Your task to perform on an android device: open app "Google Calendar" Image 0: 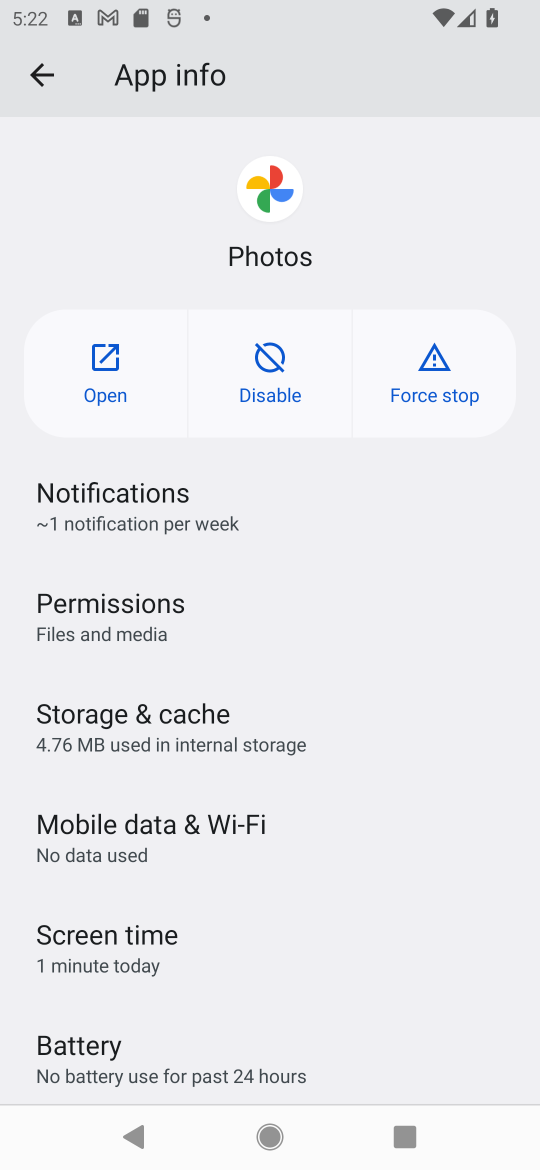
Step 0: press home button
Your task to perform on an android device: open app "Google Calendar" Image 1: 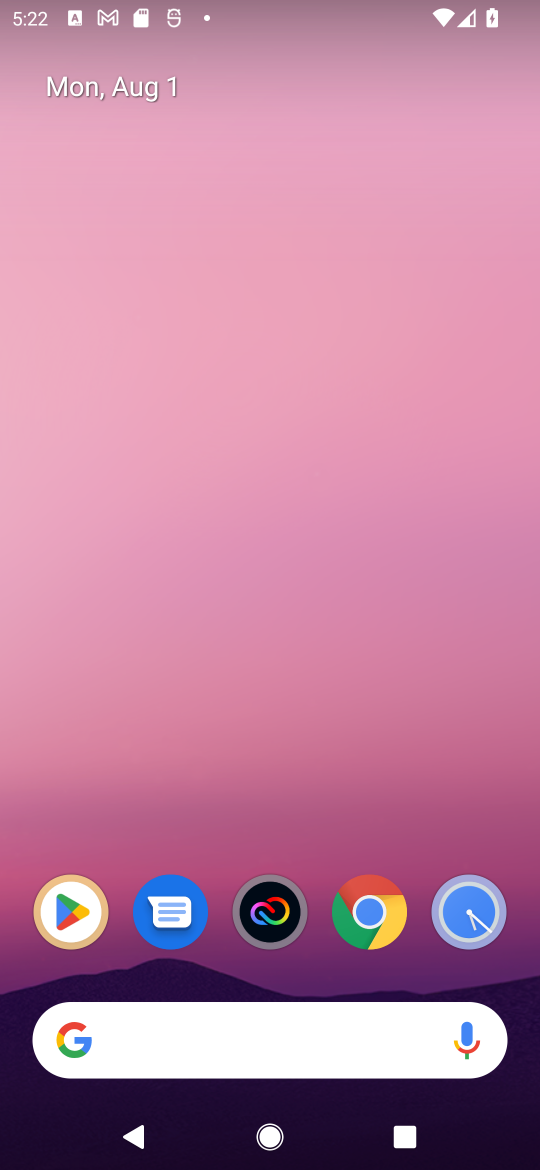
Step 1: click (92, 920)
Your task to perform on an android device: open app "Google Calendar" Image 2: 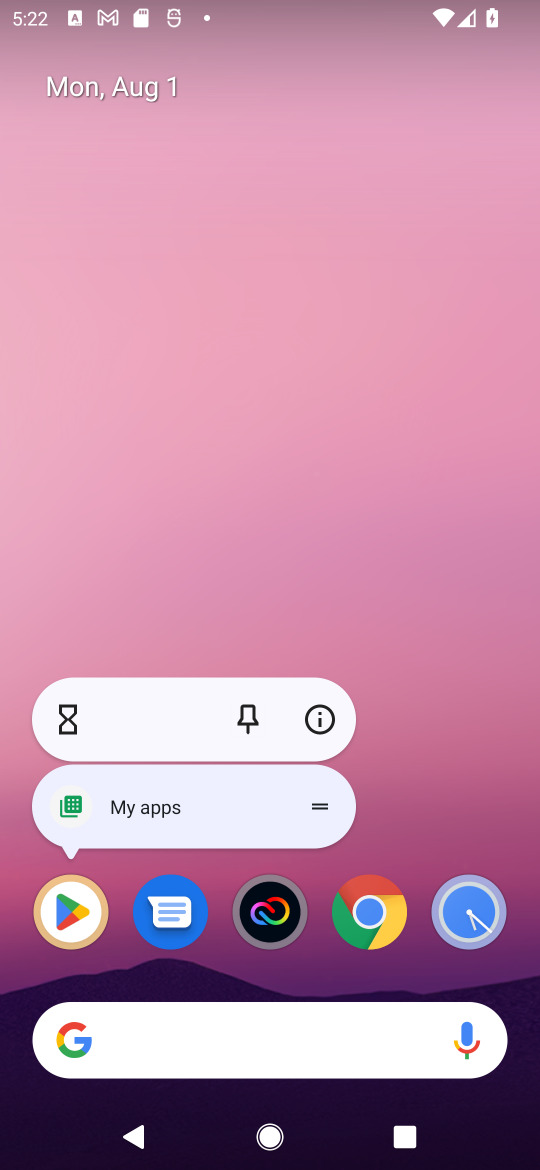
Step 2: click (59, 938)
Your task to perform on an android device: open app "Google Calendar" Image 3: 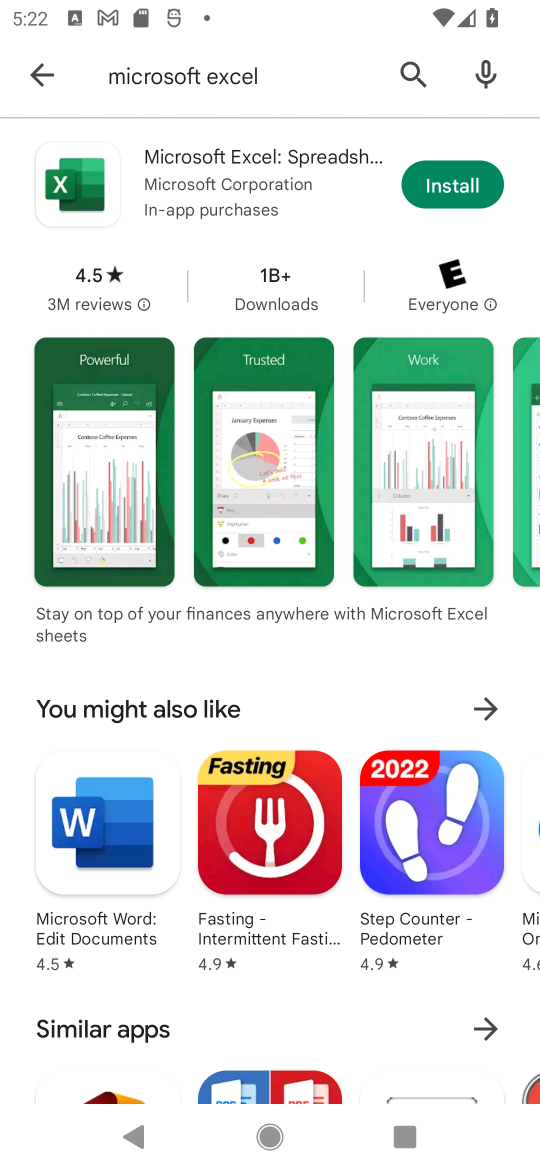
Step 3: click (417, 75)
Your task to perform on an android device: open app "Google Calendar" Image 4: 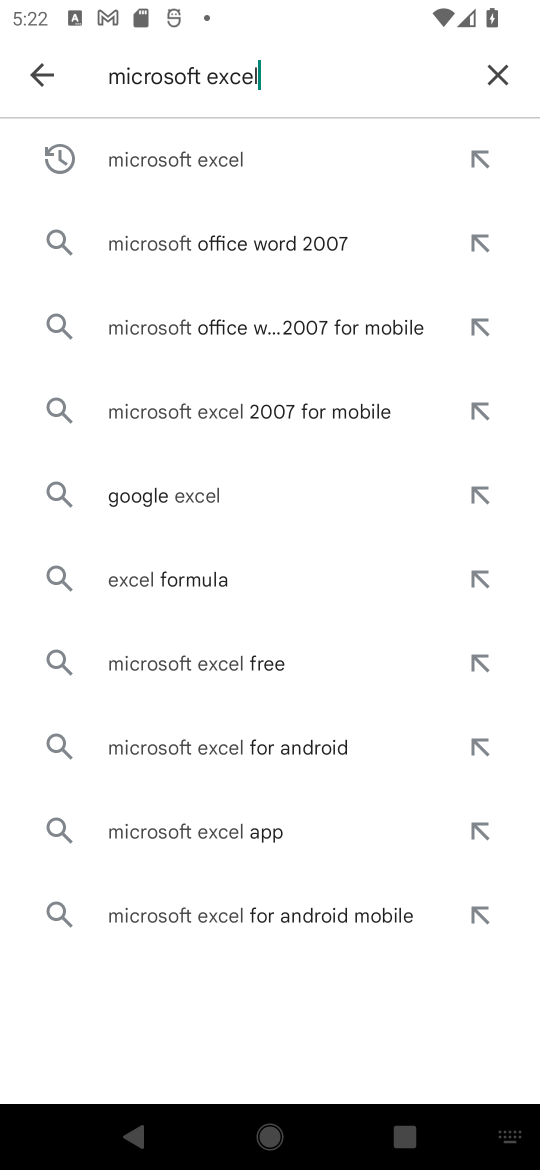
Step 4: click (495, 75)
Your task to perform on an android device: open app "Google Calendar" Image 5: 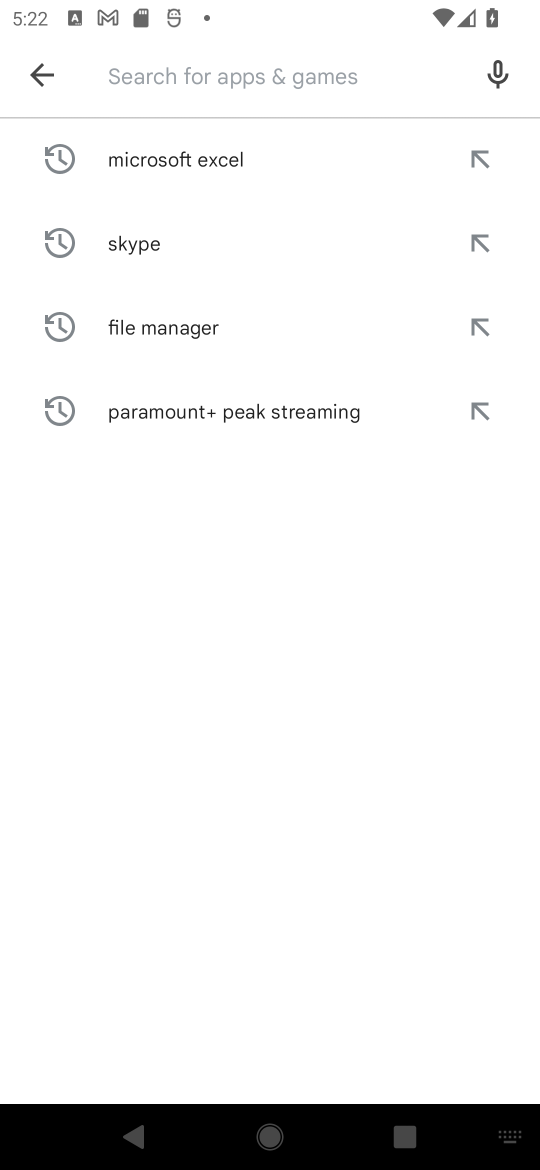
Step 5: type "Google Calendar"
Your task to perform on an android device: open app "Google Calendar" Image 6: 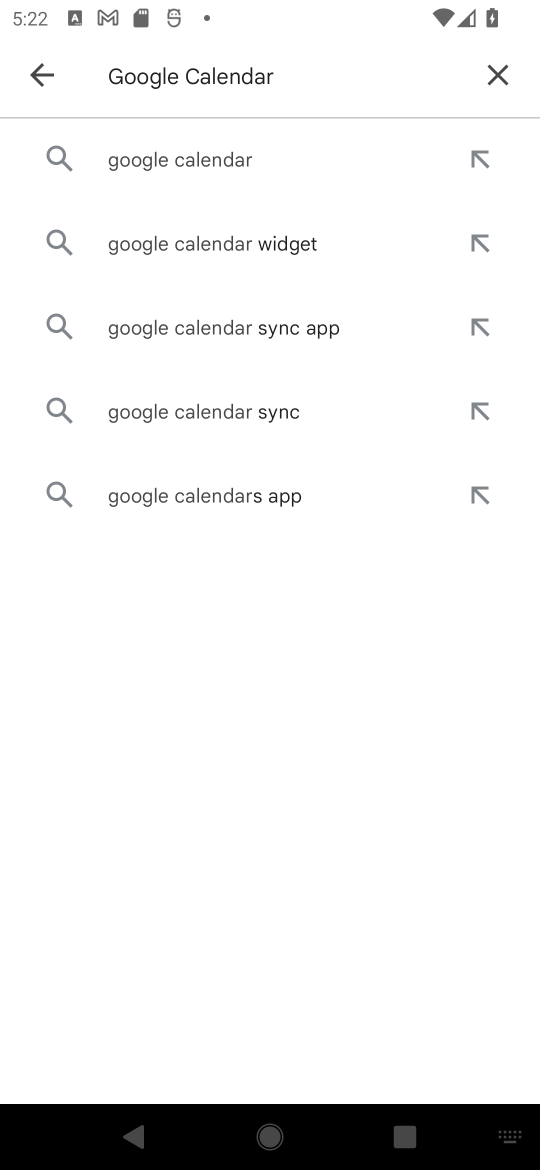
Step 6: click (191, 173)
Your task to perform on an android device: open app "Google Calendar" Image 7: 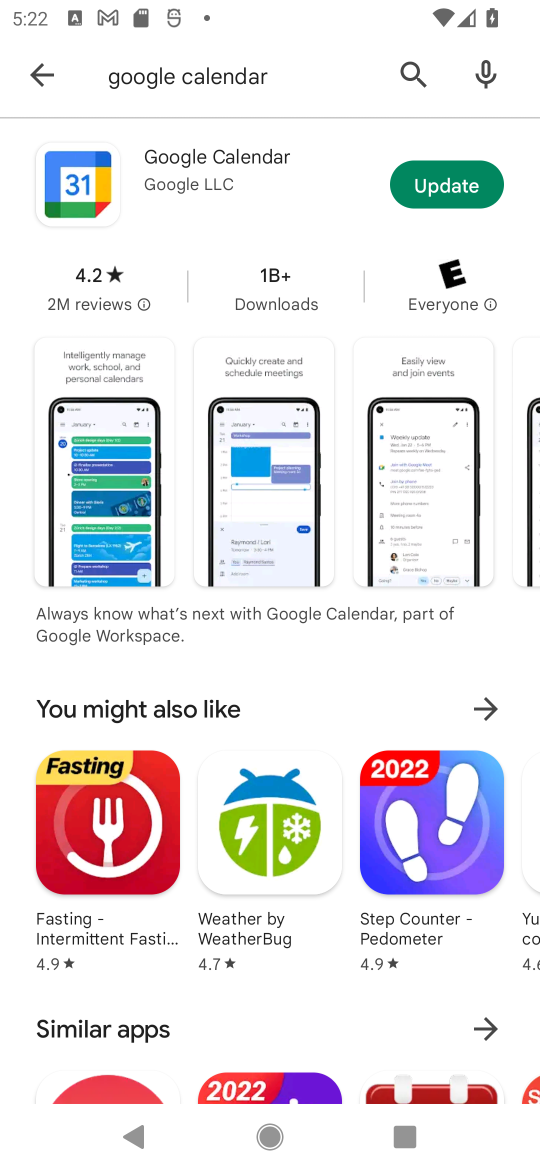
Step 7: click (173, 180)
Your task to perform on an android device: open app "Google Calendar" Image 8: 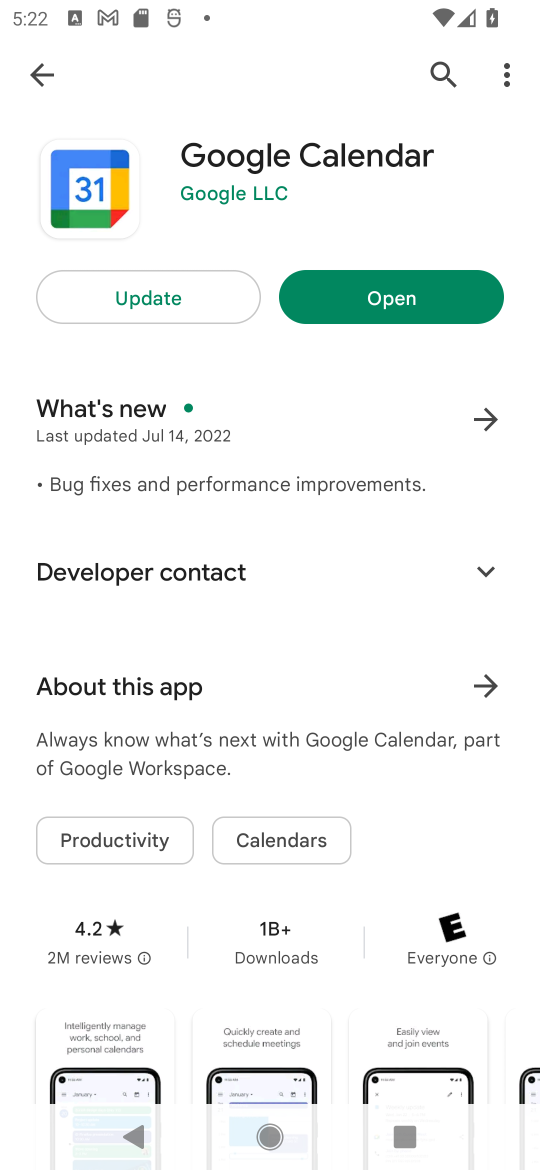
Step 8: click (400, 298)
Your task to perform on an android device: open app "Google Calendar" Image 9: 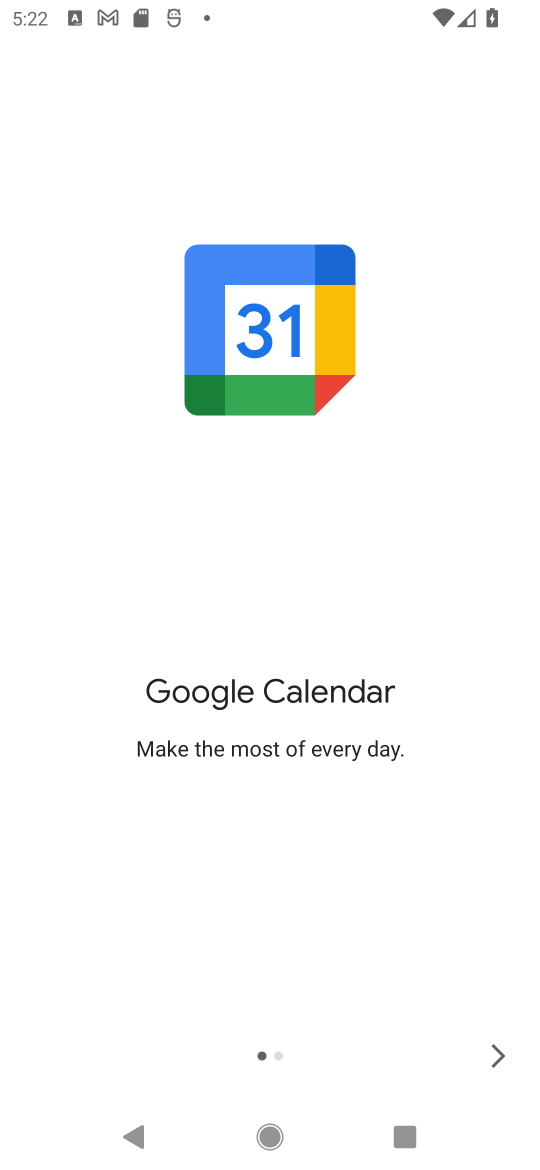
Step 9: task complete